Your task to perform on an android device: turn on location history Image 0: 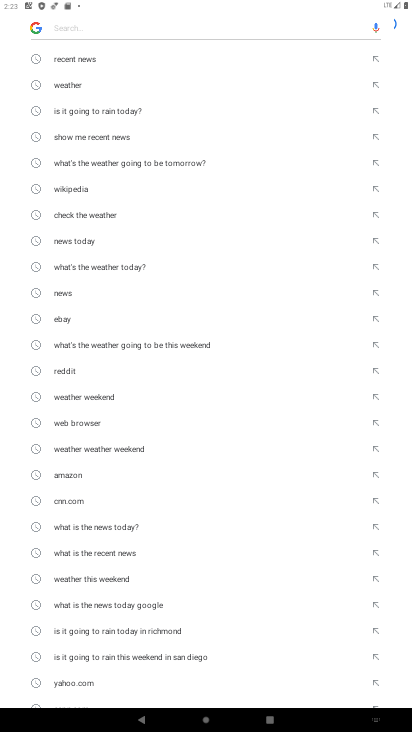
Step 0: press home button
Your task to perform on an android device: turn on location history Image 1: 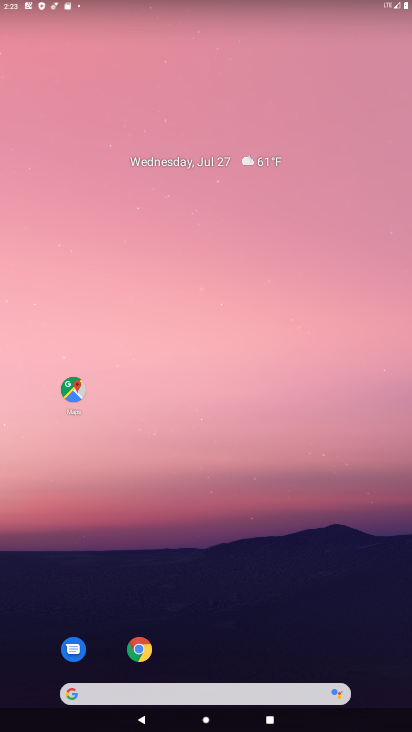
Step 1: drag from (203, 644) to (192, 177)
Your task to perform on an android device: turn on location history Image 2: 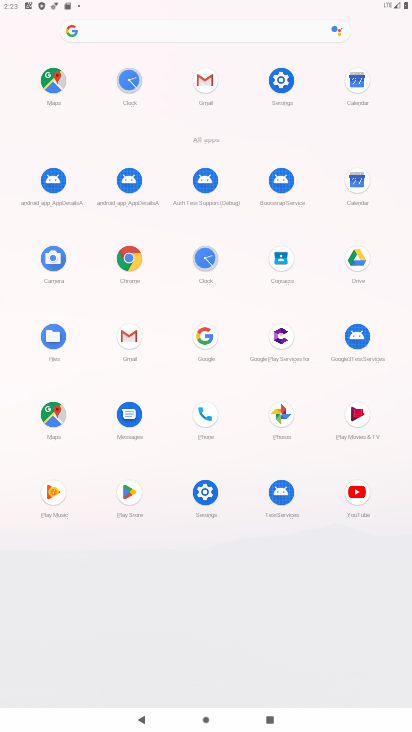
Step 2: click (280, 87)
Your task to perform on an android device: turn on location history Image 3: 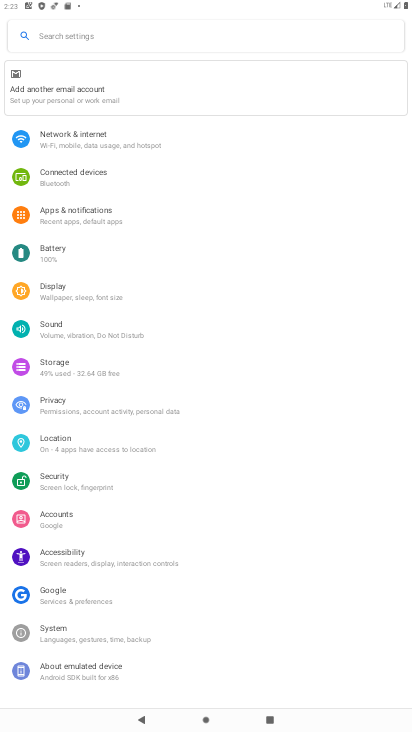
Step 3: click (65, 449)
Your task to perform on an android device: turn on location history Image 4: 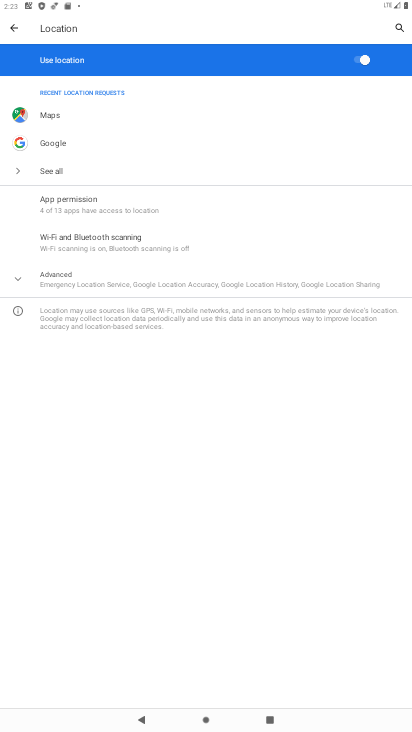
Step 4: click (63, 281)
Your task to perform on an android device: turn on location history Image 5: 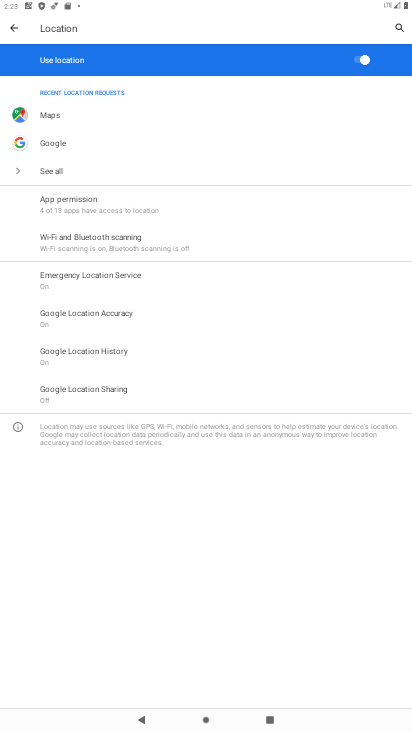
Step 5: click (77, 357)
Your task to perform on an android device: turn on location history Image 6: 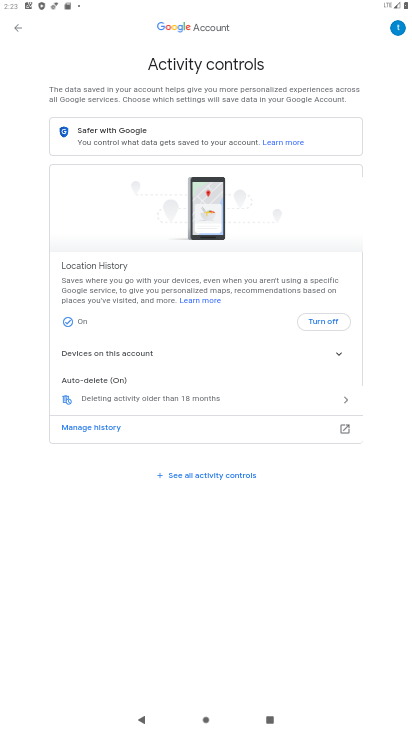
Step 6: task complete